Your task to perform on an android device: open app "Instagram" Image 0: 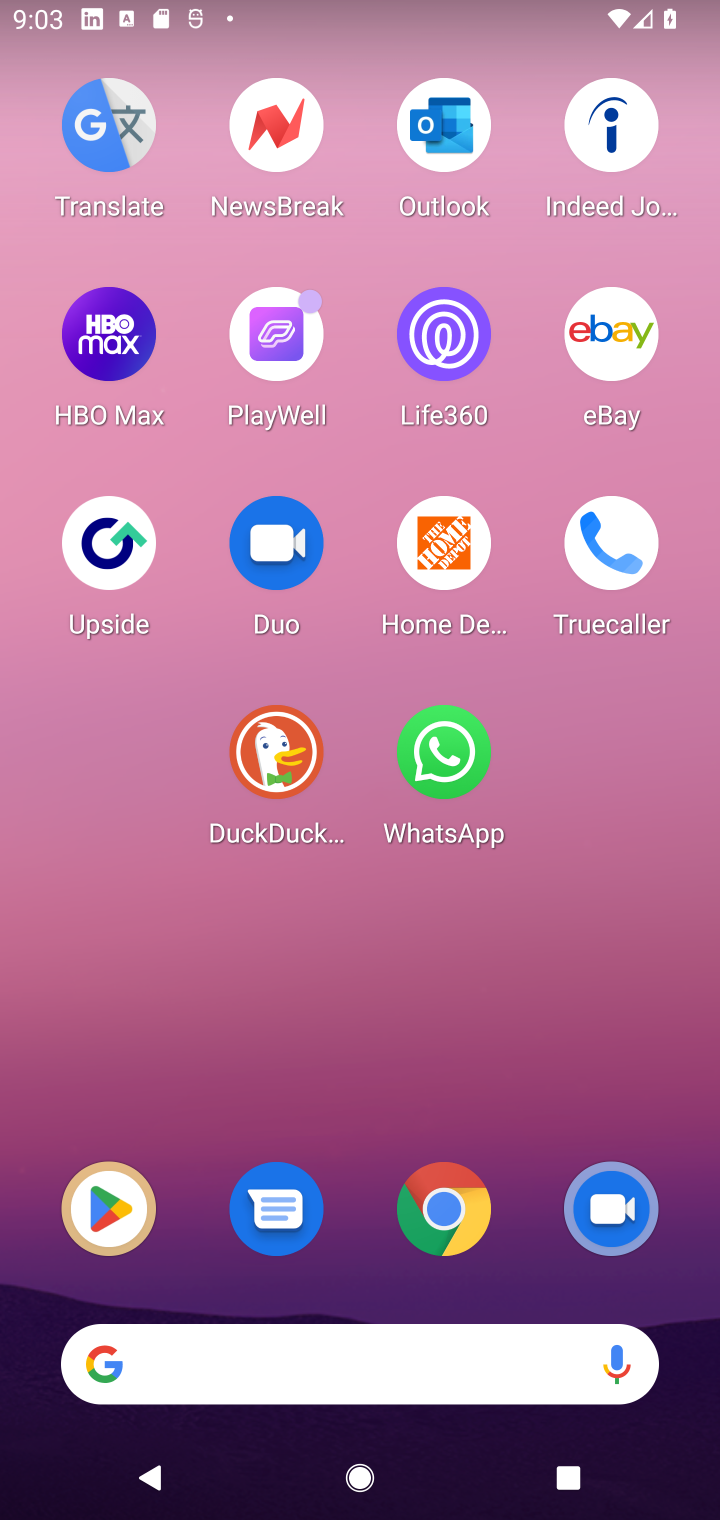
Step 0: press home button
Your task to perform on an android device: open app "Instagram" Image 1: 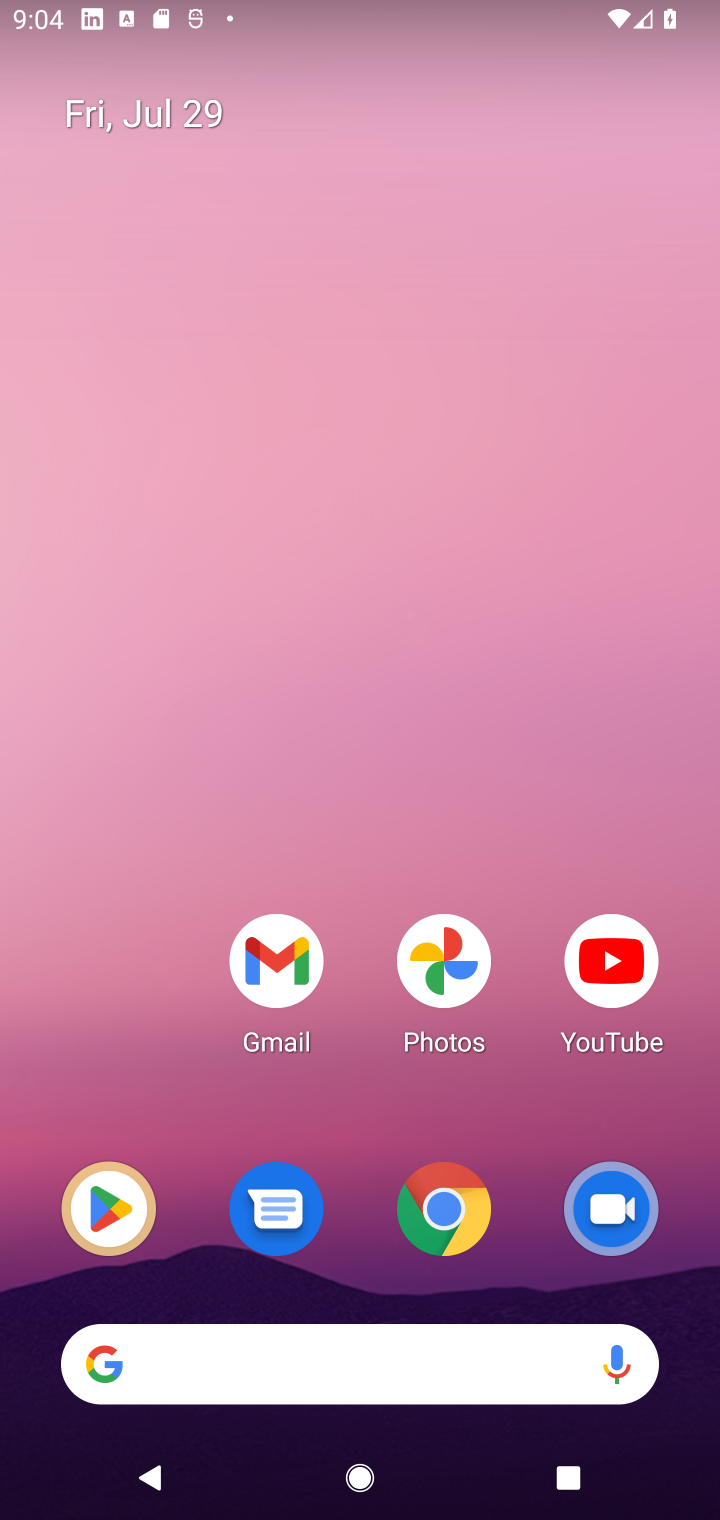
Step 1: click (116, 1225)
Your task to perform on an android device: open app "Instagram" Image 2: 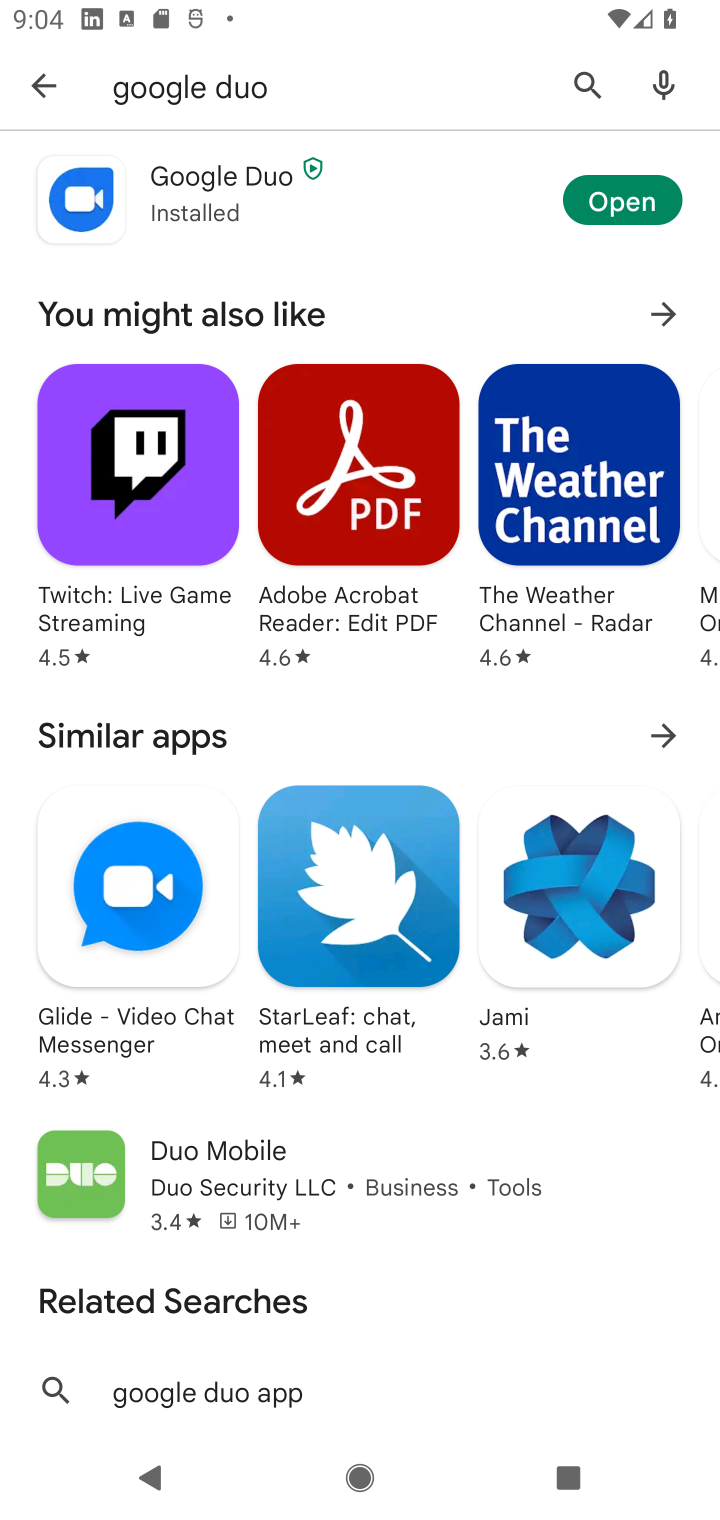
Step 2: click (582, 84)
Your task to perform on an android device: open app "Instagram" Image 3: 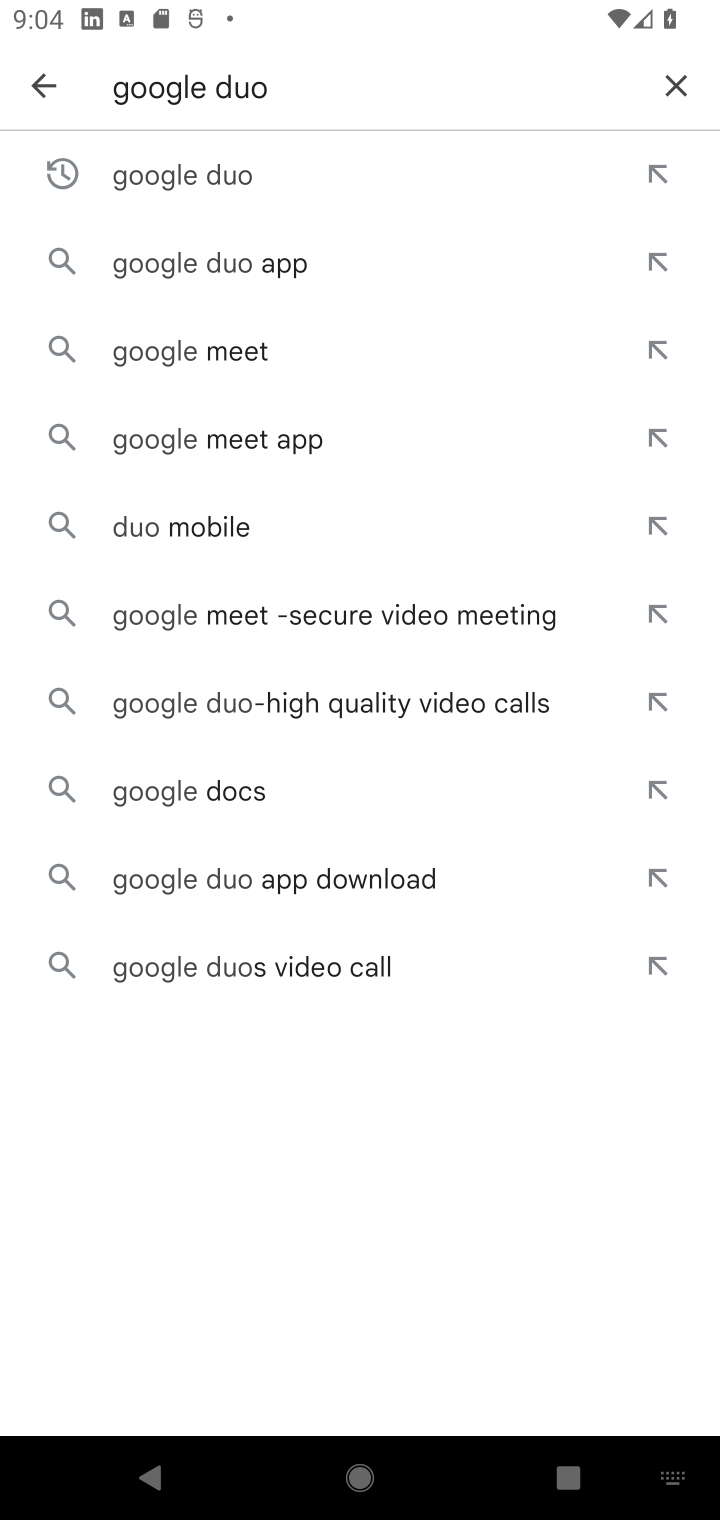
Step 3: click (669, 83)
Your task to perform on an android device: open app "Instagram" Image 4: 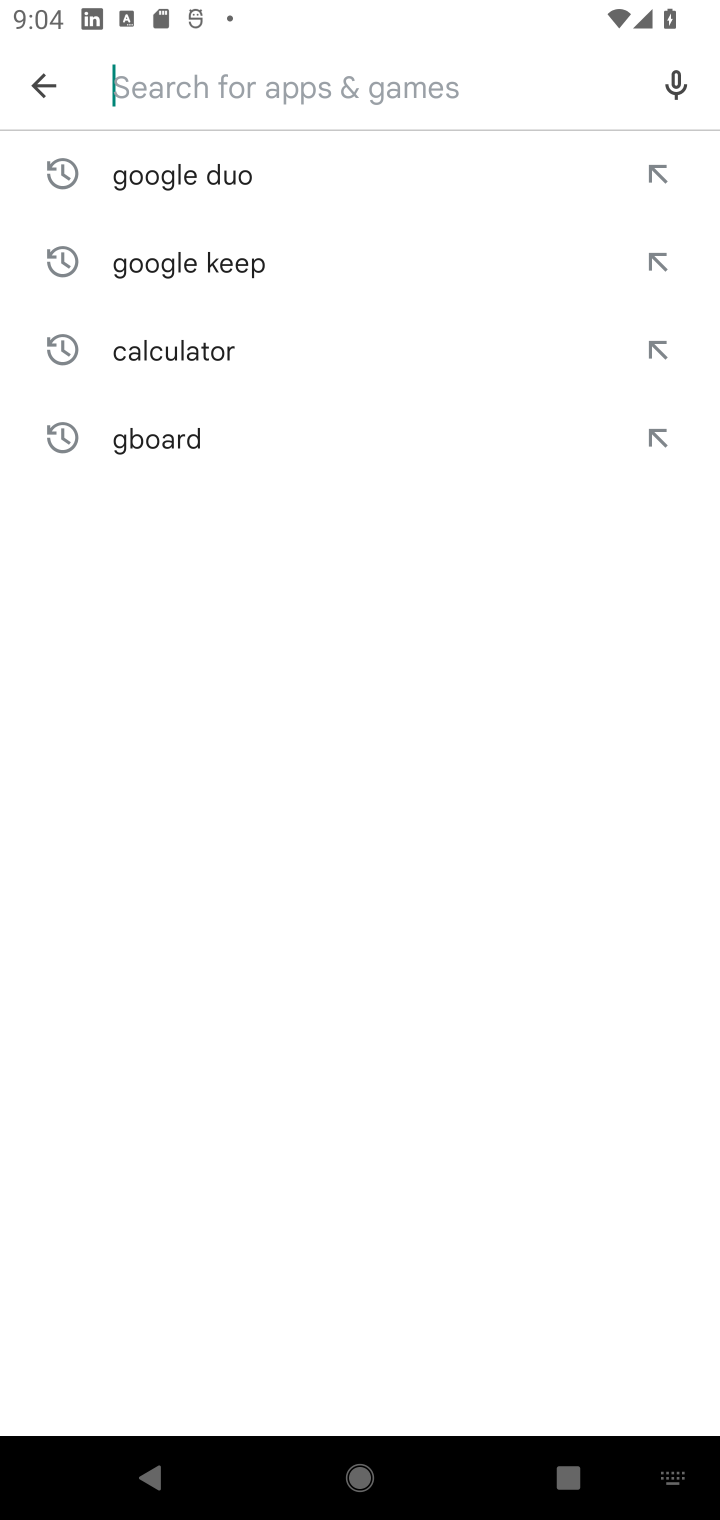
Step 4: type "Instagram"
Your task to perform on an android device: open app "Instagram" Image 5: 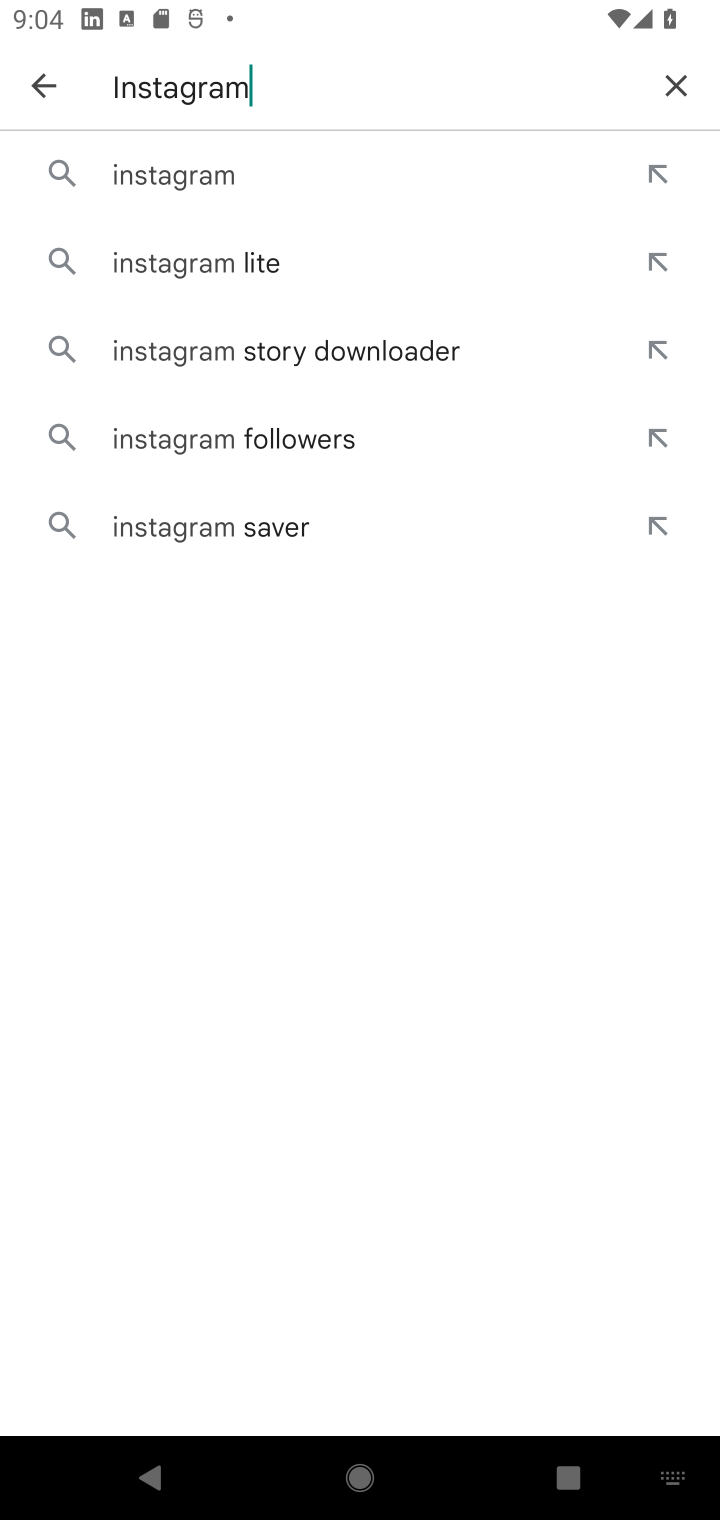
Step 5: click (140, 183)
Your task to perform on an android device: open app "Instagram" Image 6: 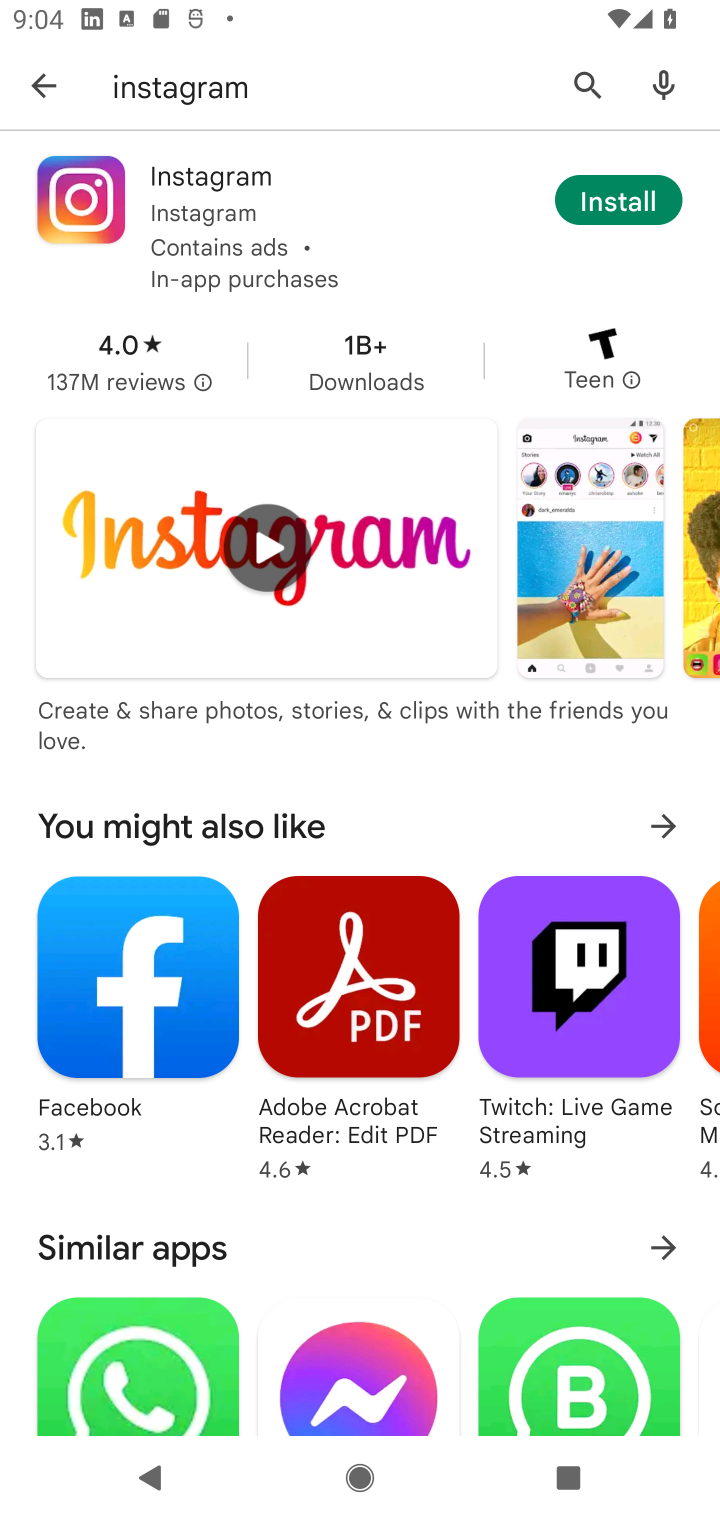
Step 6: task complete